Your task to perform on an android device: turn on airplane mode Image 0: 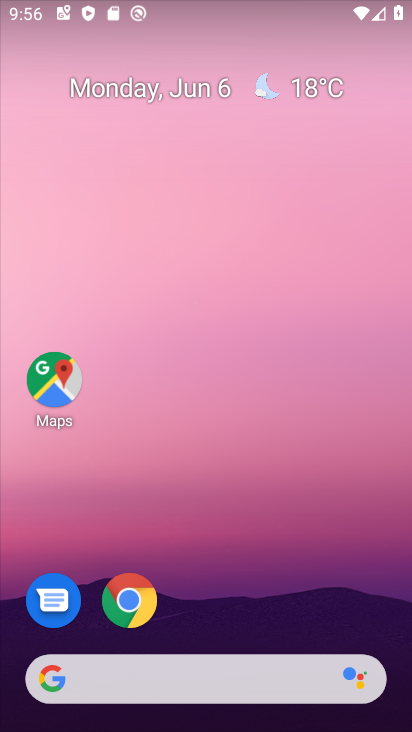
Step 0: drag from (229, 560) to (216, 28)
Your task to perform on an android device: turn on airplane mode Image 1: 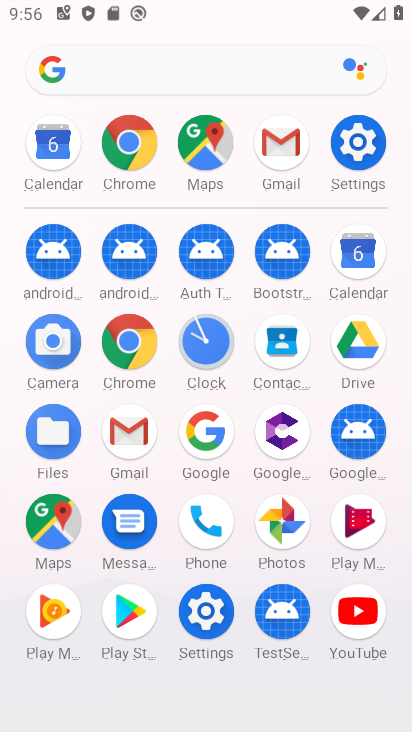
Step 1: click (206, 609)
Your task to perform on an android device: turn on airplane mode Image 2: 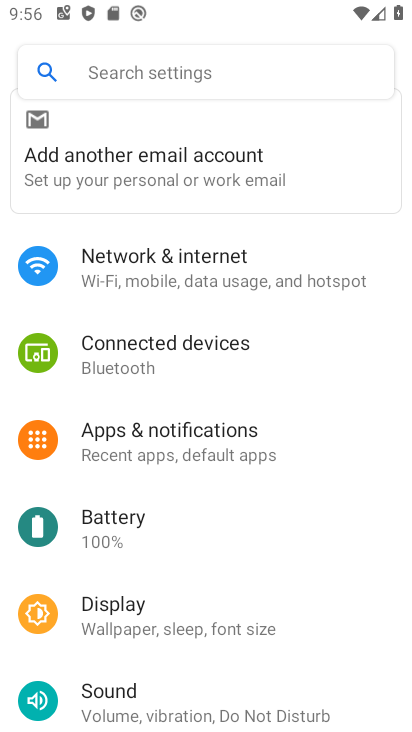
Step 2: drag from (266, 577) to (306, 229)
Your task to perform on an android device: turn on airplane mode Image 3: 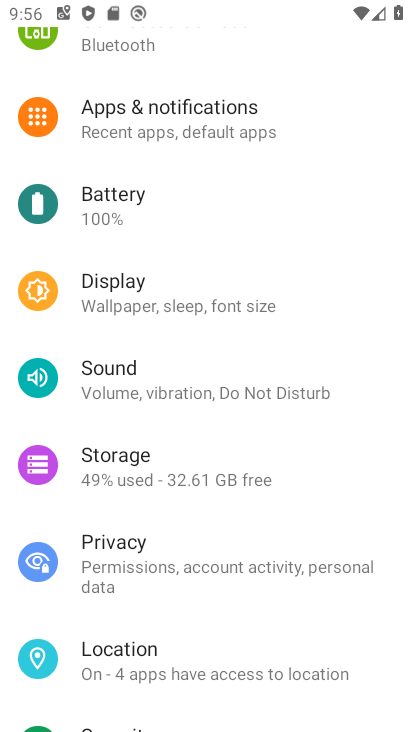
Step 3: drag from (287, 581) to (319, 223)
Your task to perform on an android device: turn on airplane mode Image 4: 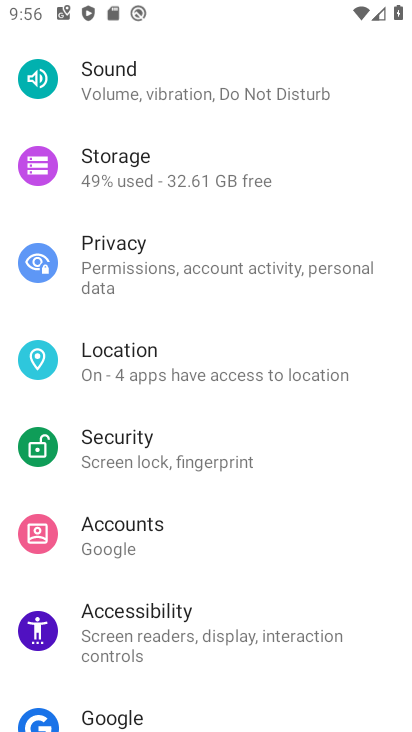
Step 4: drag from (307, 179) to (269, 577)
Your task to perform on an android device: turn on airplane mode Image 5: 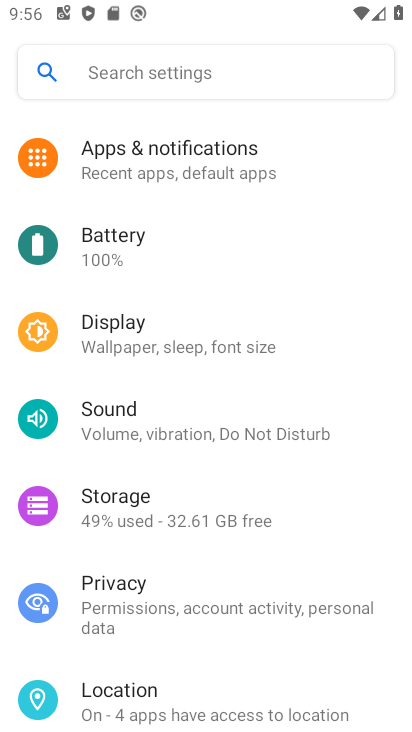
Step 5: drag from (282, 259) to (252, 621)
Your task to perform on an android device: turn on airplane mode Image 6: 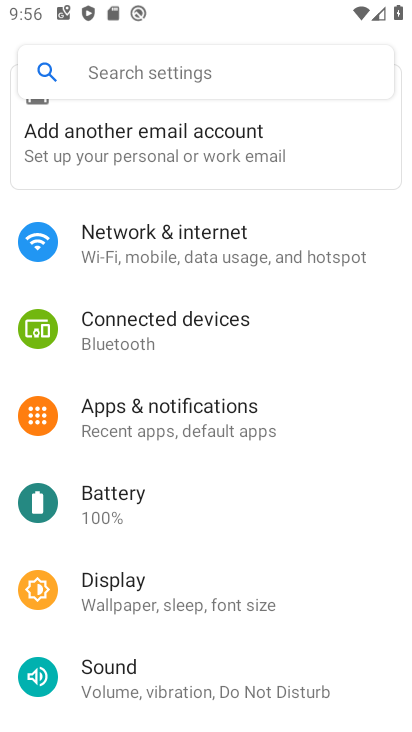
Step 6: click (231, 253)
Your task to perform on an android device: turn on airplane mode Image 7: 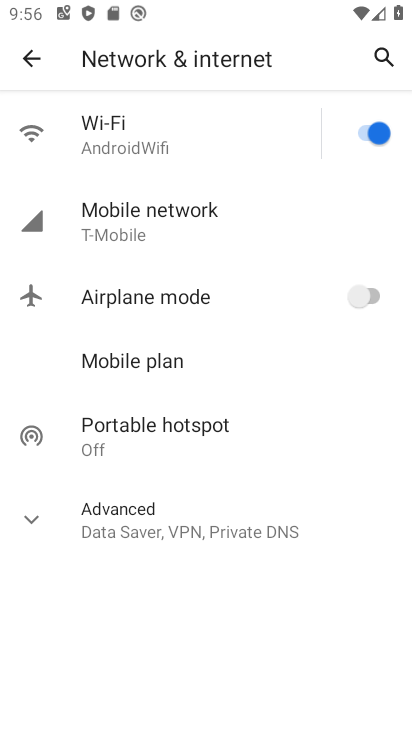
Step 7: click (34, 524)
Your task to perform on an android device: turn on airplane mode Image 8: 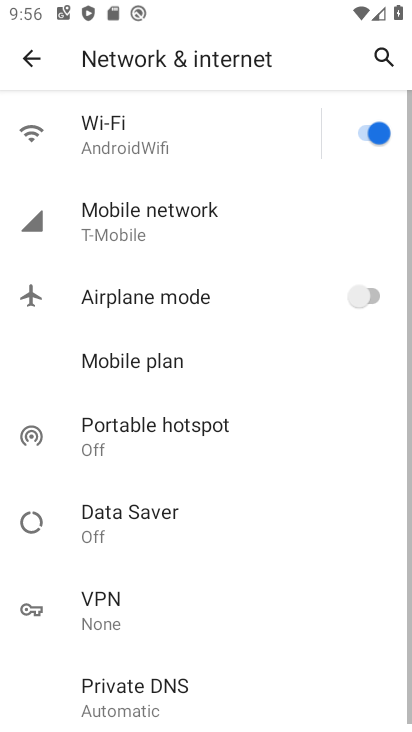
Step 8: click (379, 289)
Your task to perform on an android device: turn on airplane mode Image 9: 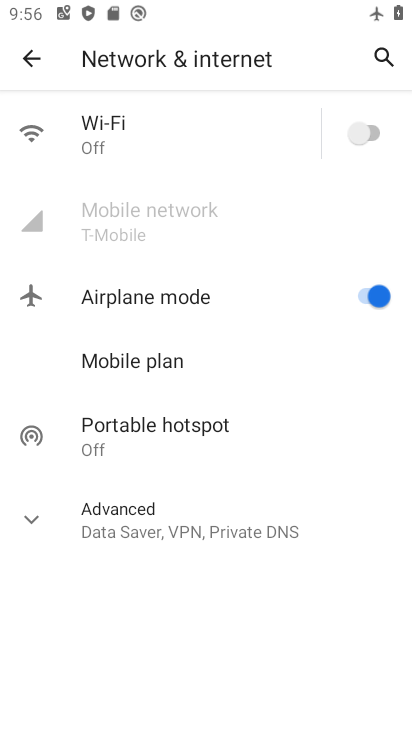
Step 9: click (20, 509)
Your task to perform on an android device: turn on airplane mode Image 10: 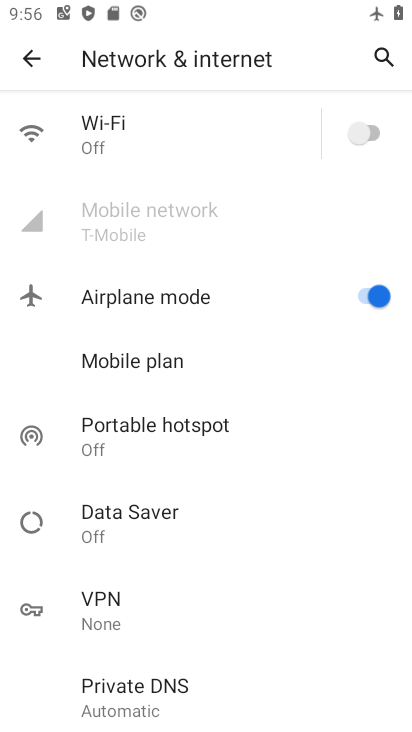
Step 10: task complete